Your task to perform on an android device: Open display settings Image 0: 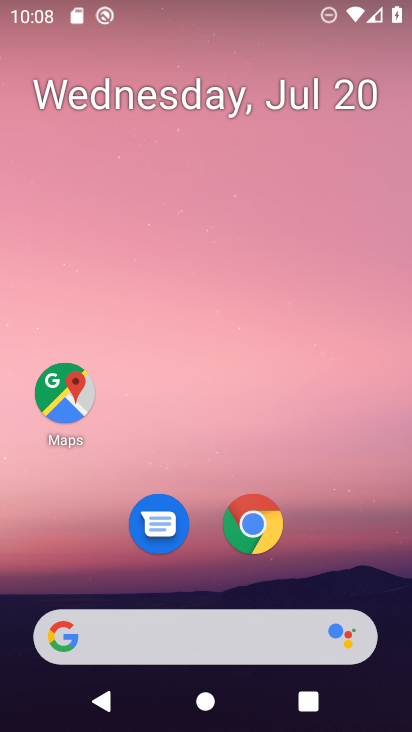
Step 0: press home button
Your task to perform on an android device: Open display settings Image 1: 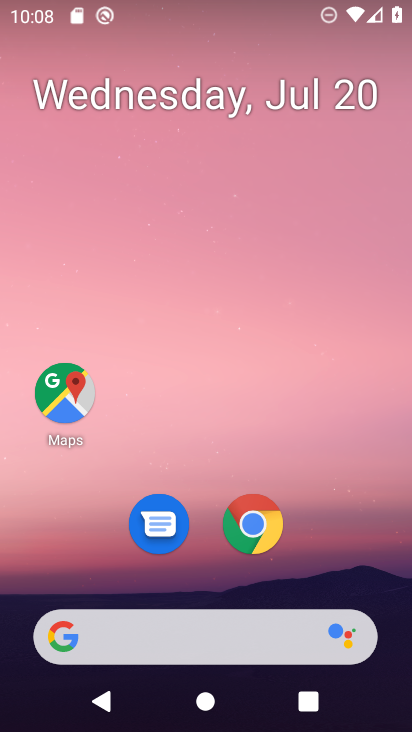
Step 1: drag from (202, 646) to (198, 211)
Your task to perform on an android device: Open display settings Image 2: 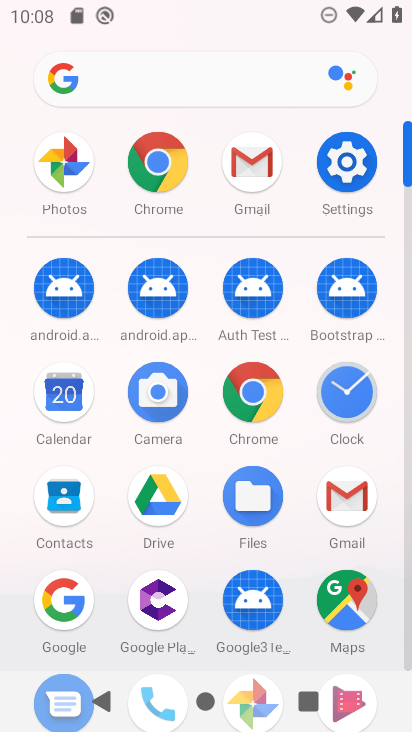
Step 2: click (341, 159)
Your task to perform on an android device: Open display settings Image 3: 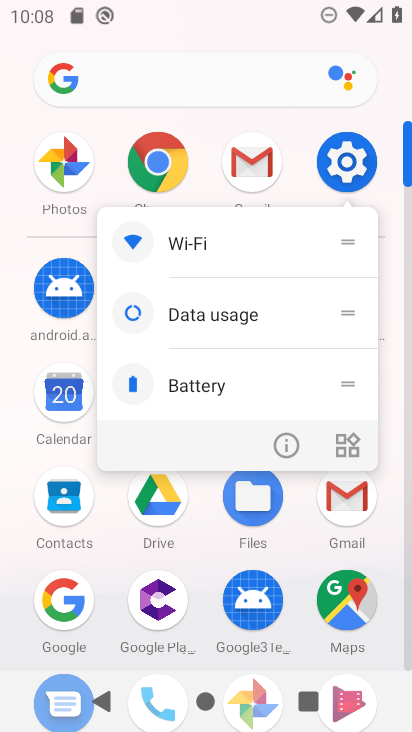
Step 3: click (350, 159)
Your task to perform on an android device: Open display settings Image 4: 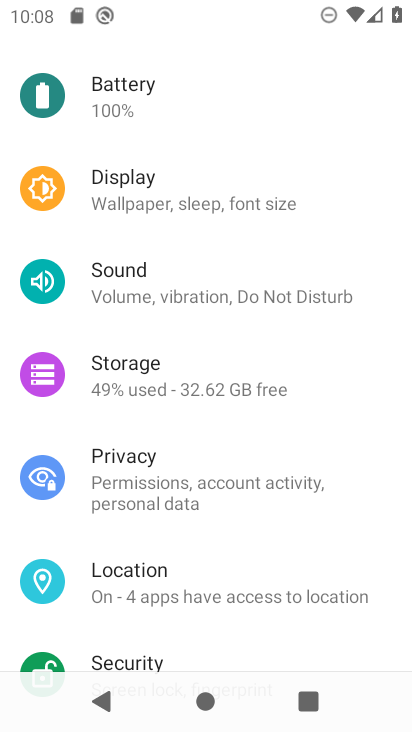
Step 4: drag from (260, 127) to (296, 545)
Your task to perform on an android device: Open display settings Image 5: 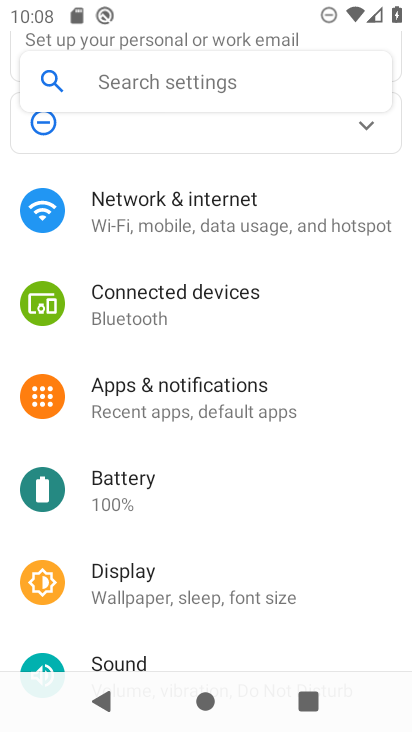
Step 5: drag from (219, 524) to (266, 312)
Your task to perform on an android device: Open display settings Image 6: 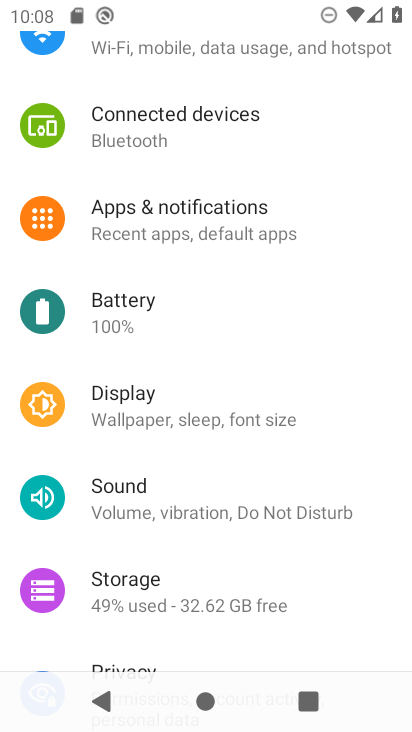
Step 6: click (156, 399)
Your task to perform on an android device: Open display settings Image 7: 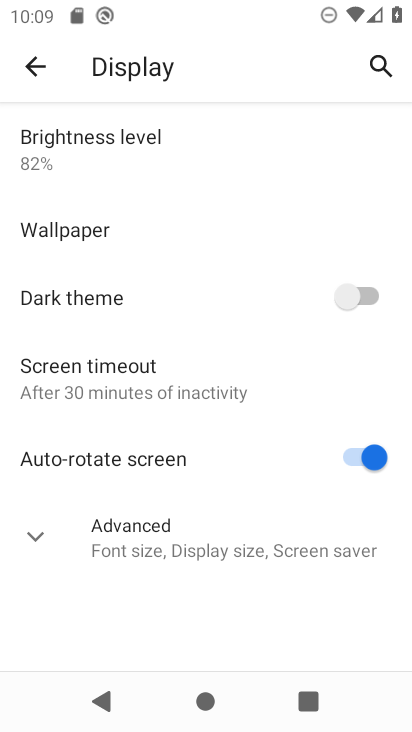
Step 7: task complete